Your task to perform on an android device: Open Google Chrome and click the shortcut for Amazon.com Image 0: 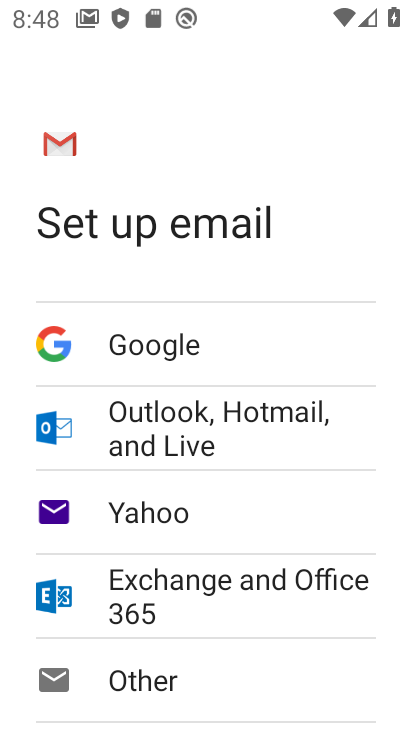
Step 0: press home button
Your task to perform on an android device: Open Google Chrome and click the shortcut for Amazon.com Image 1: 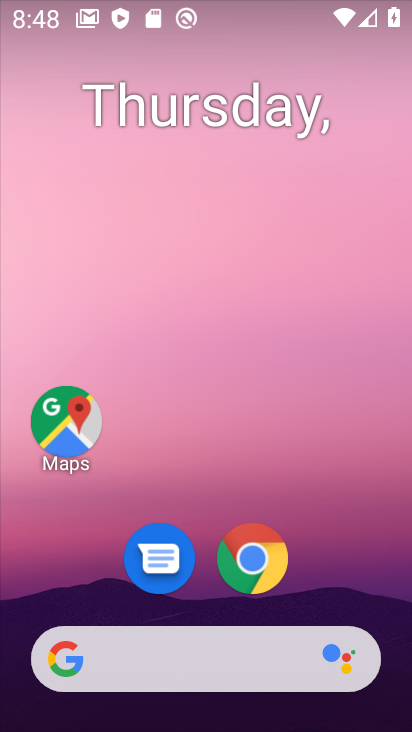
Step 1: click (251, 557)
Your task to perform on an android device: Open Google Chrome and click the shortcut for Amazon.com Image 2: 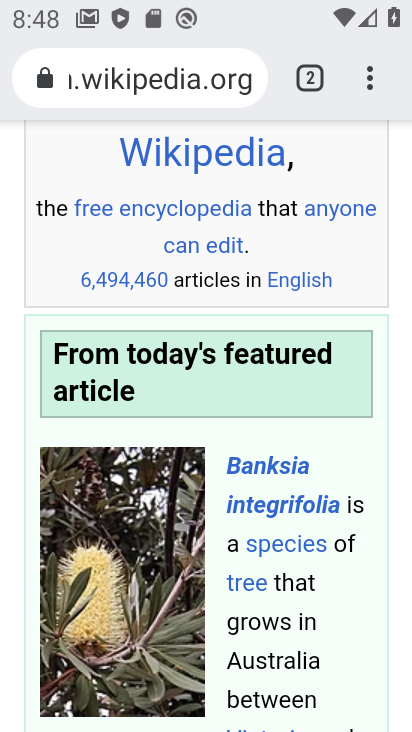
Step 2: click (371, 84)
Your task to perform on an android device: Open Google Chrome and click the shortcut for Amazon.com Image 3: 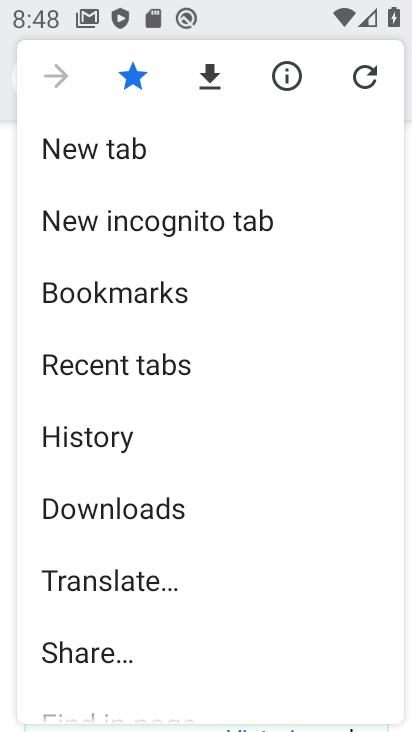
Step 3: click (79, 139)
Your task to perform on an android device: Open Google Chrome and click the shortcut for Amazon.com Image 4: 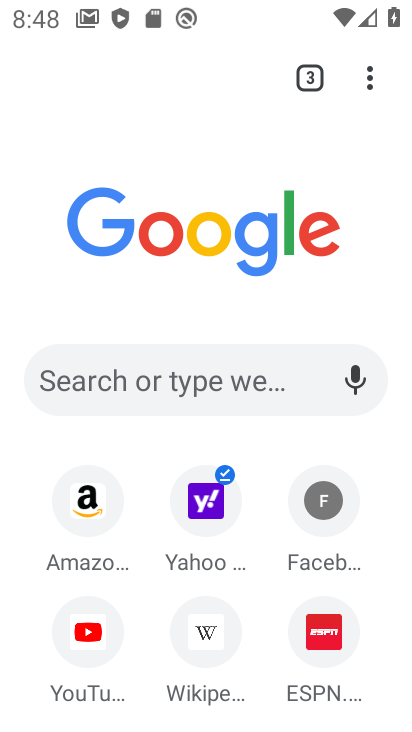
Step 4: click (87, 495)
Your task to perform on an android device: Open Google Chrome and click the shortcut for Amazon.com Image 5: 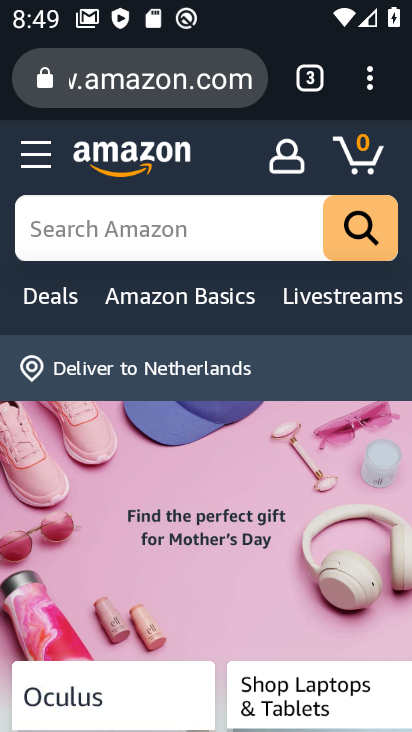
Step 5: task complete